Your task to perform on an android device: toggle location history Image 0: 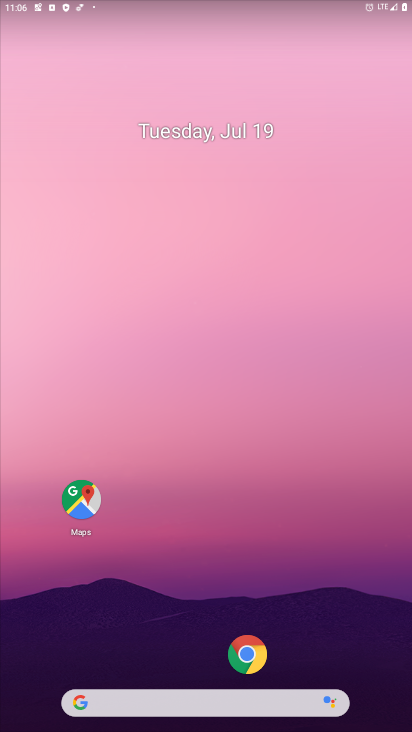
Step 0: drag from (156, 629) to (130, 8)
Your task to perform on an android device: toggle location history Image 1: 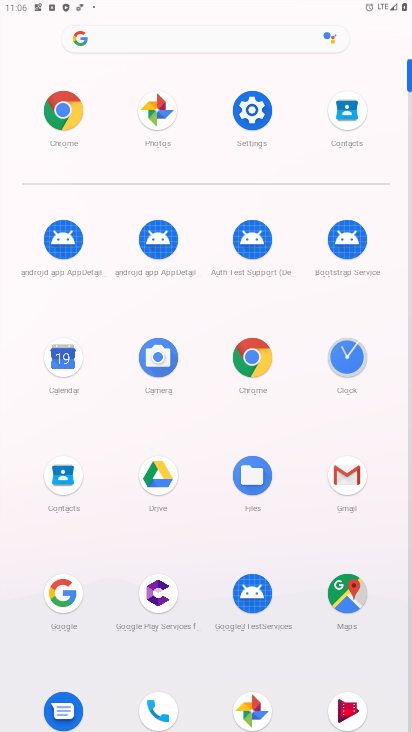
Step 1: click (247, 163)
Your task to perform on an android device: toggle location history Image 2: 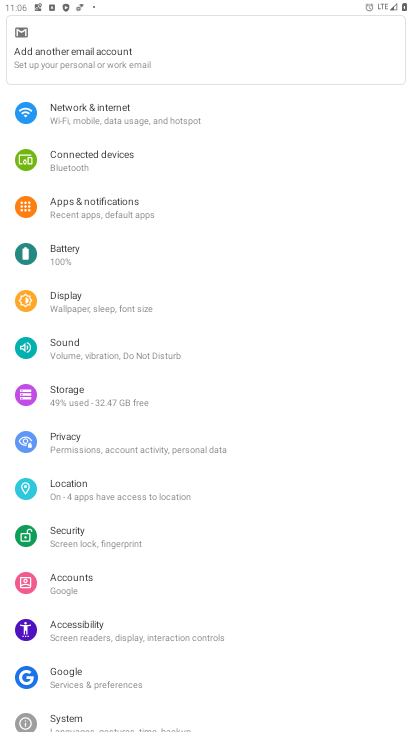
Step 2: click (91, 505)
Your task to perform on an android device: toggle location history Image 3: 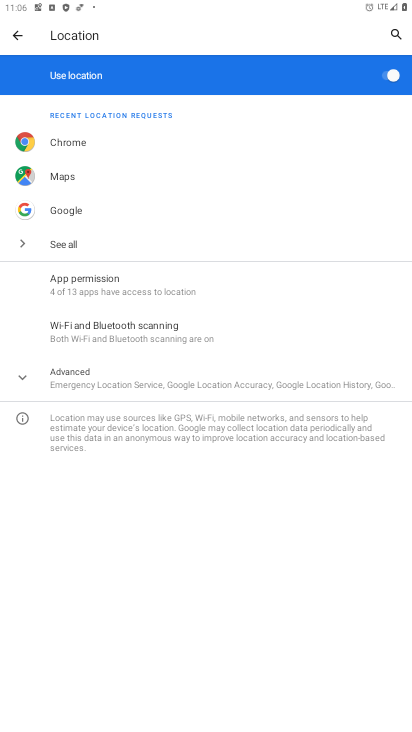
Step 3: click (129, 372)
Your task to perform on an android device: toggle location history Image 4: 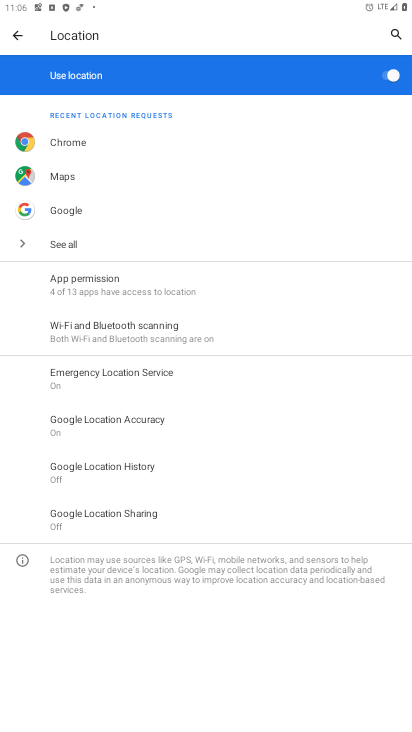
Step 4: click (134, 468)
Your task to perform on an android device: toggle location history Image 5: 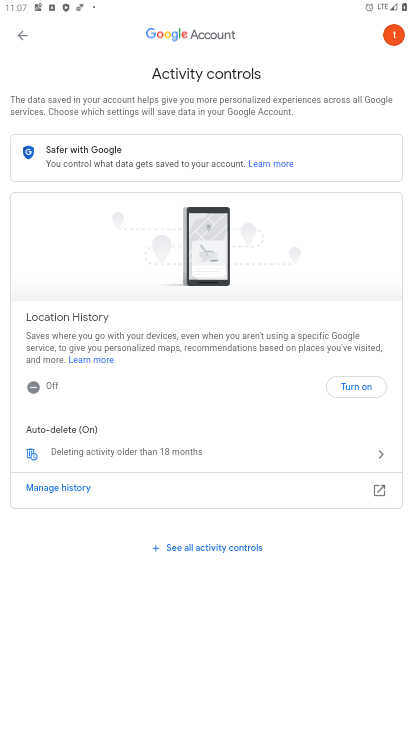
Step 5: click (354, 388)
Your task to perform on an android device: toggle location history Image 6: 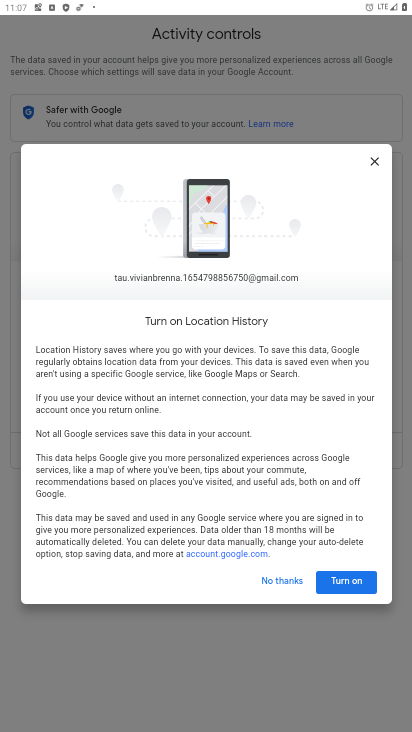
Step 6: click (354, 590)
Your task to perform on an android device: toggle location history Image 7: 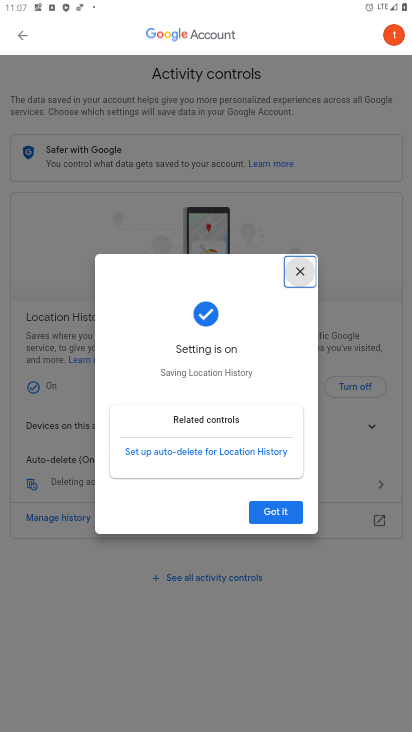
Step 7: click (280, 510)
Your task to perform on an android device: toggle location history Image 8: 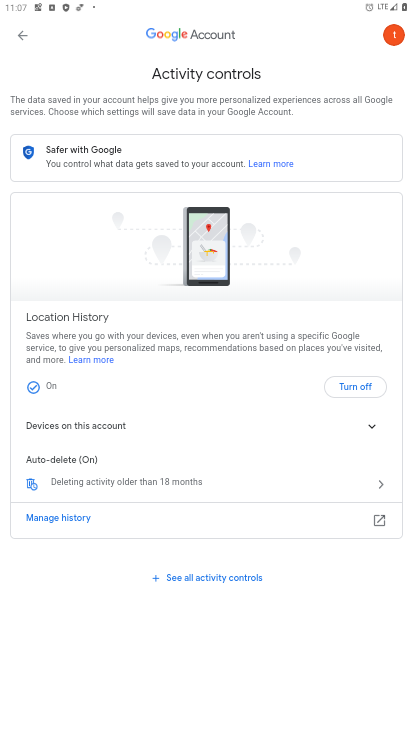
Step 8: task complete